Your task to perform on an android device: turn off wifi Image 0: 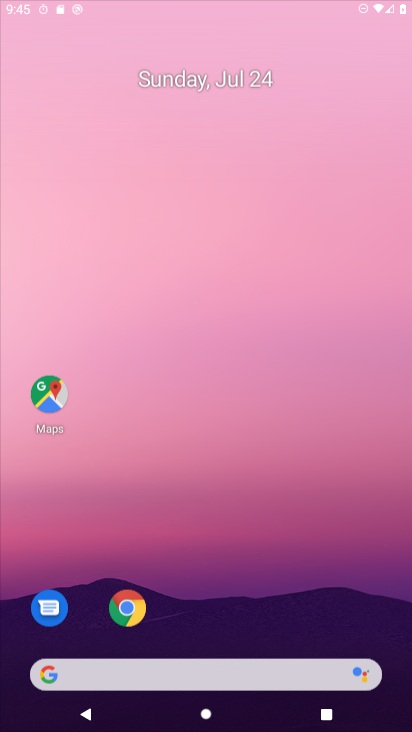
Step 0: click (162, 230)
Your task to perform on an android device: turn off wifi Image 1: 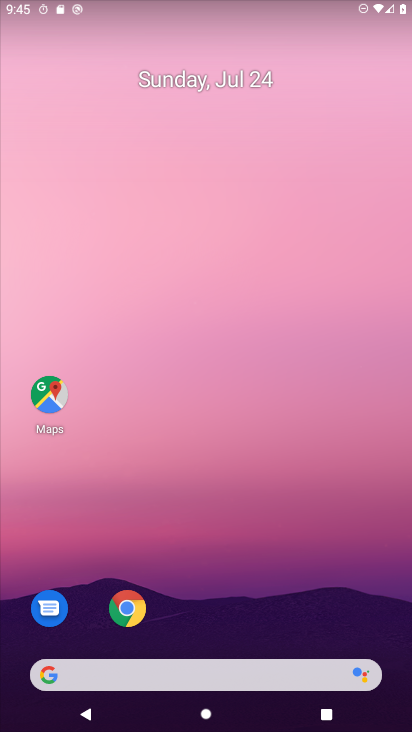
Step 1: drag from (168, 629) to (192, 184)
Your task to perform on an android device: turn off wifi Image 2: 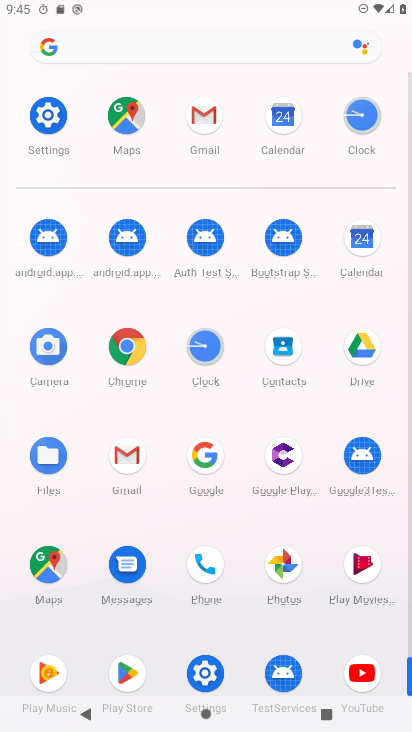
Step 2: click (196, 677)
Your task to perform on an android device: turn off wifi Image 3: 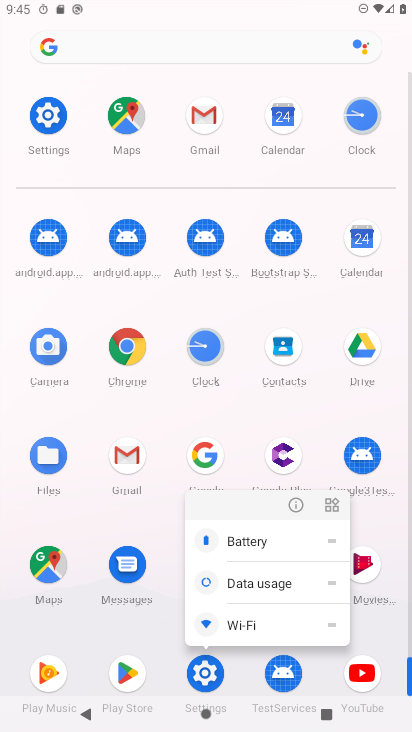
Step 3: click (284, 505)
Your task to perform on an android device: turn off wifi Image 4: 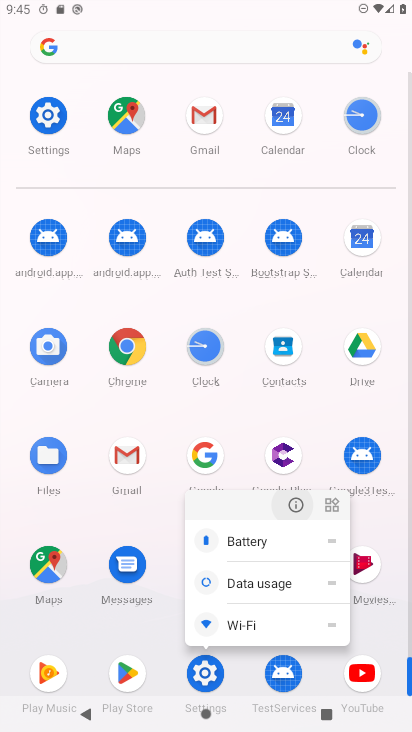
Step 4: click (284, 505)
Your task to perform on an android device: turn off wifi Image 5: 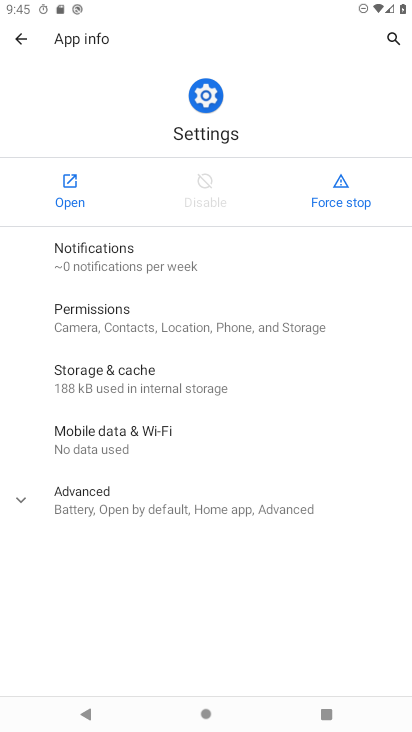
Step 5: click (65, 189)
Your task to perform on an android device: turn off wifi Image 6: 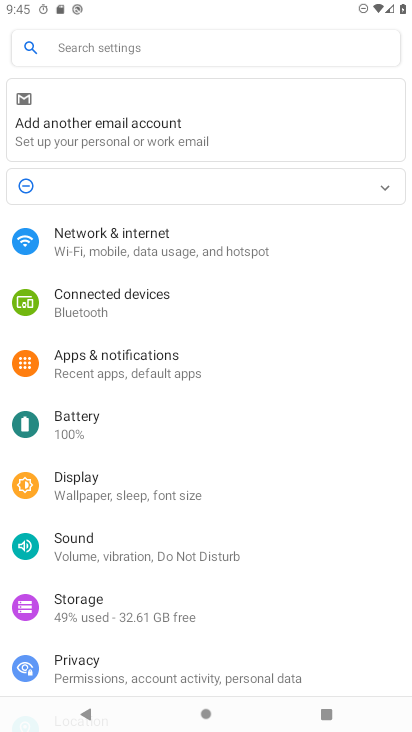
Step 6: click (44, 242)
Your task to perform on an android device: turn off wifi Image 7: 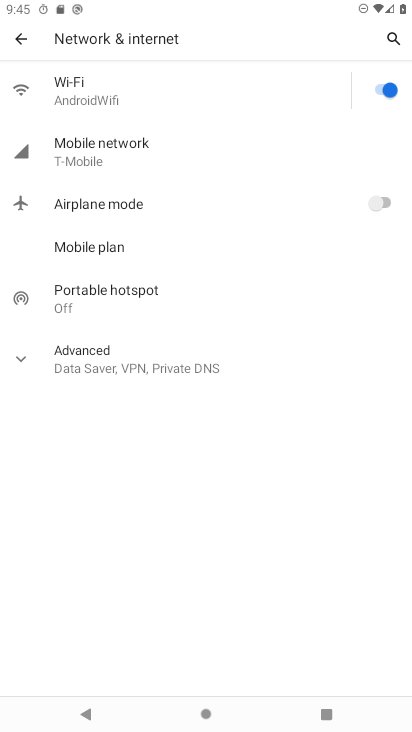
Step 7: click (136, 99)
Your task to perform on an android device: turn off wifi Image 8: 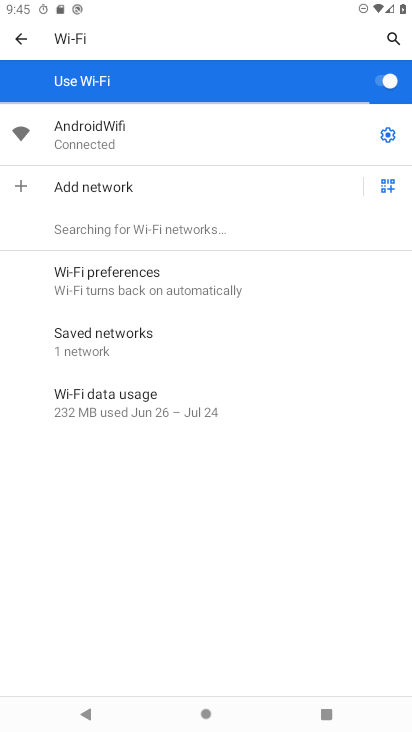
Step 8: click (389, 77)
Your task to perform on an android device: turn off wifi Image 9: 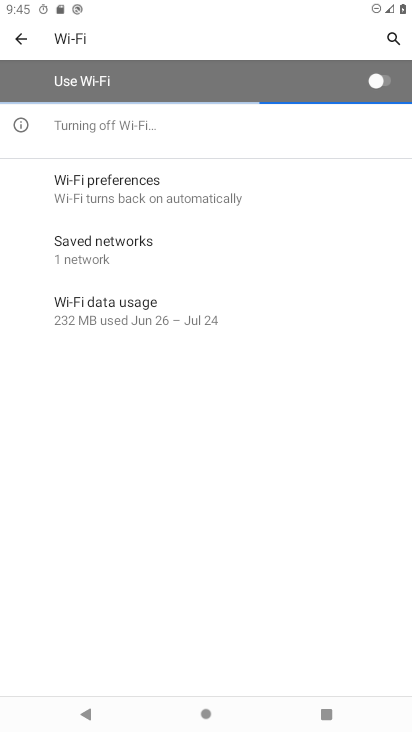
Step 9: task complete